Your task to perform on an android device: Open notification settings Image 0: 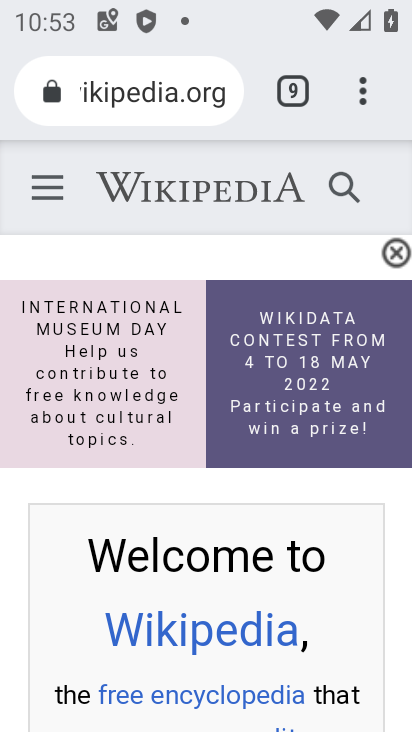
Step 0: press home button
Your task to perform on an android device: Open notification settings Image 1: 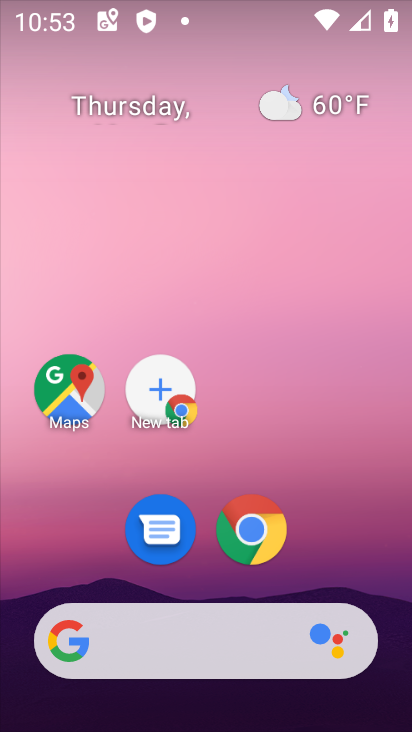
Step 1: drag from (385, 576) to (237, 120)
Your task to perform on an android device: Open notification settings Image 2: 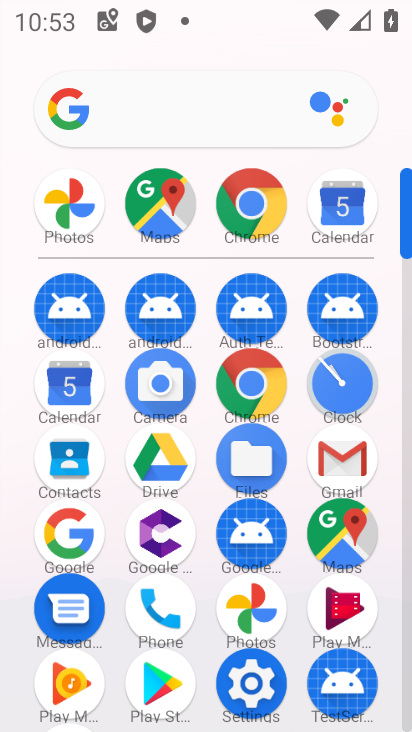
Step 2: click (236, 682)
Your task to perform on an android device: Open notification settings Image 3: 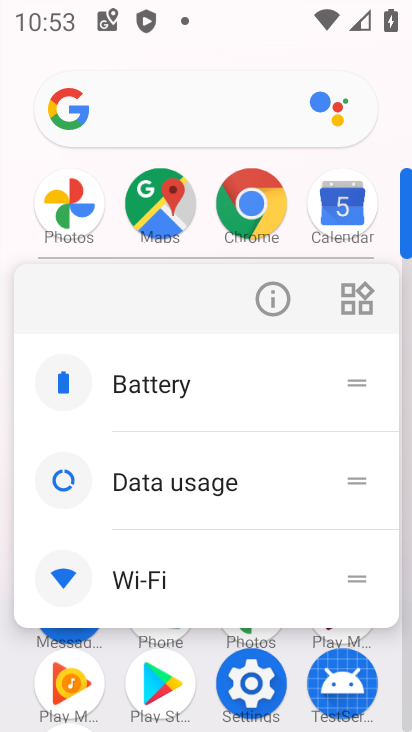
Step 3: click (243, 684)
Your task to perform on an android device: Open notification settings Image 4: 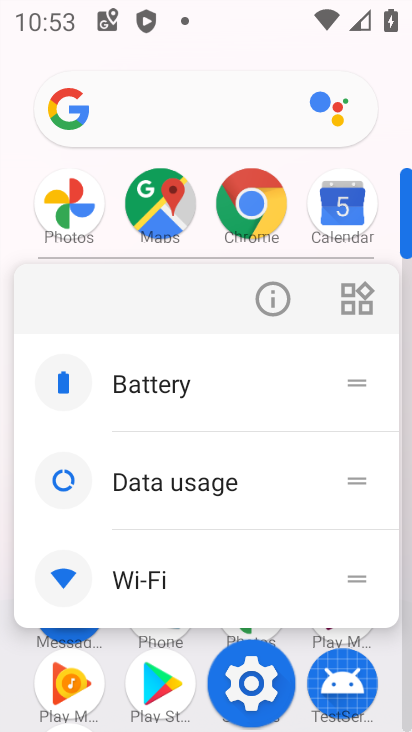
Step 4: click (244, 684)
Your task to perform on an android device: Open notification settings Image 5: 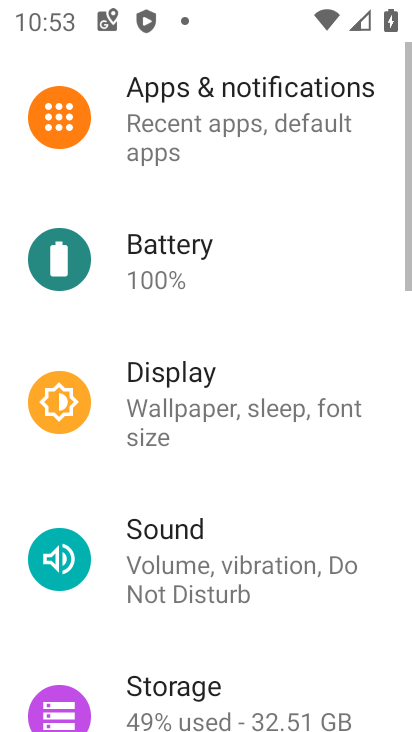
Step 5: click (244, 684)
Your task to perform on an android device: Open notification settings Image 6: 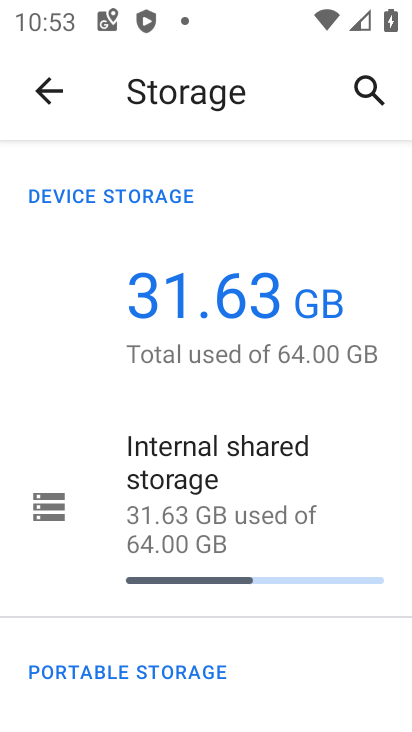
Step 6: click (44, 87)
Your task to perform on an android device: Open notification settings Image 7: 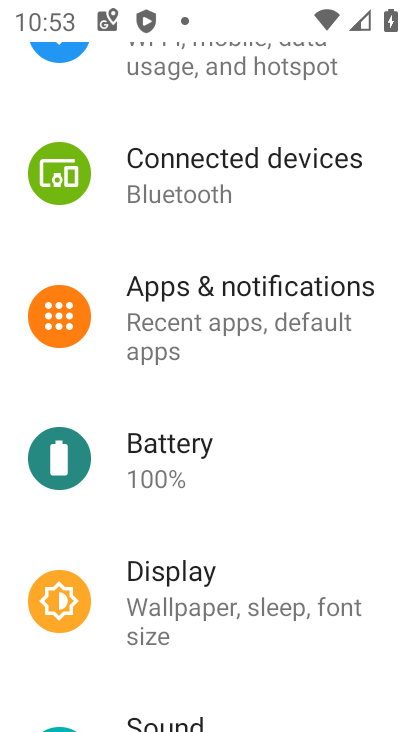
Step 7: click (194, 315)
Your task to perform on an android device: Open notification settings Image 8: 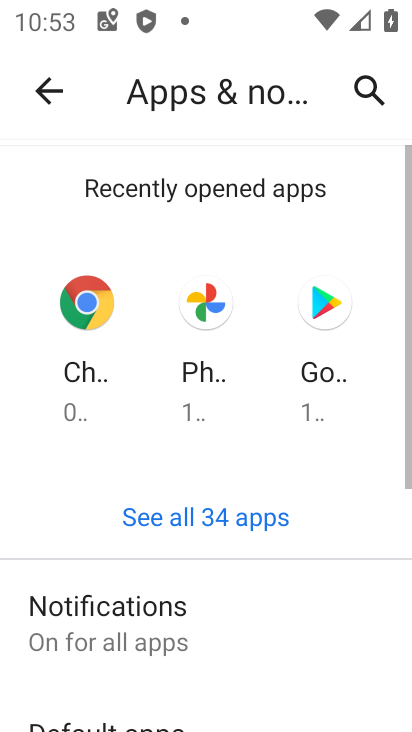
Step 8: click (92, 622)
Your task to perform on an android device: Open notification settings Image 9: 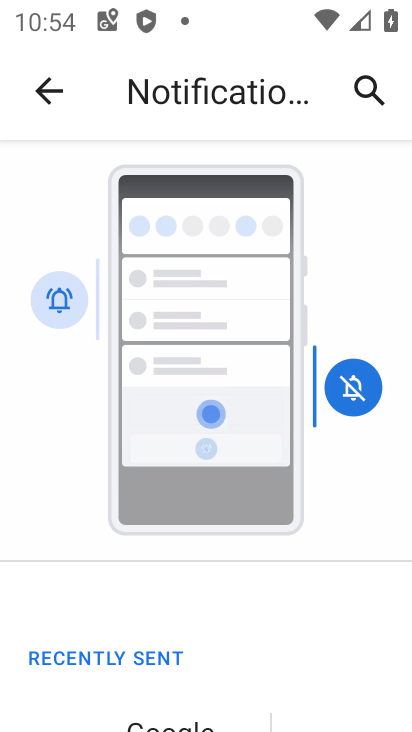
Step 9: drag from (199, 569) to (214, 78)
Your task to perform on an android device: Open notification settings Image 10: 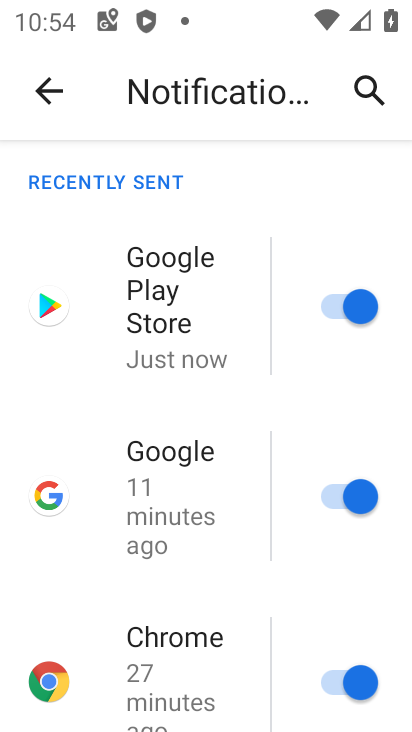
Step 10: drag from (214, 498) to (202, 124)
Your task to perform on an android device: Open notification settings Image 11: 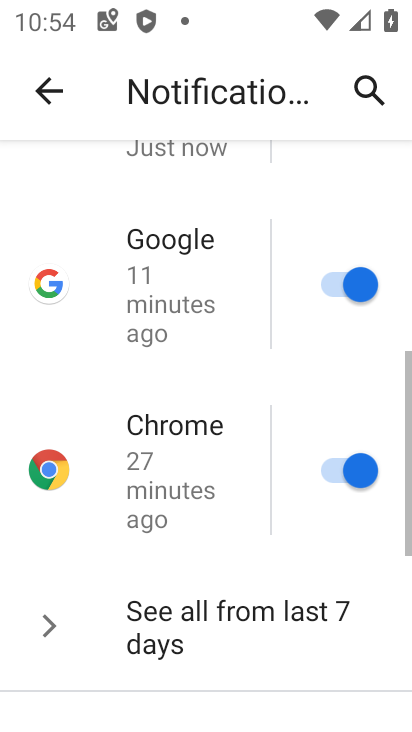
Step 11: drag from (218, 445) to (247, 130)
Your task to perform on an android device: Open notification settings Image 12: 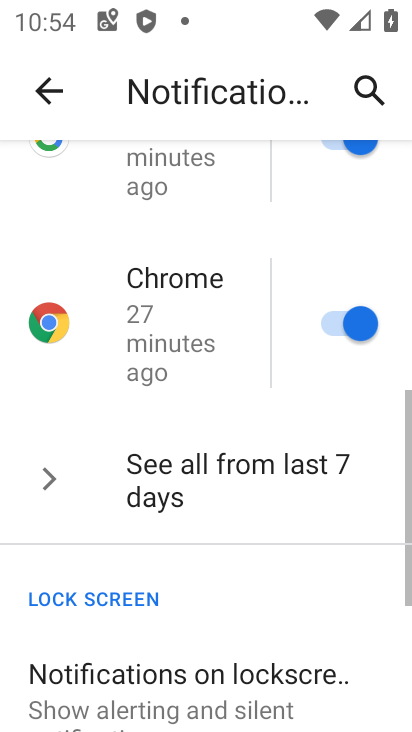
Step 12: drag from (235, 566) to (277, 115)
Your task to perform on an android device: Open notification settings Image 13: 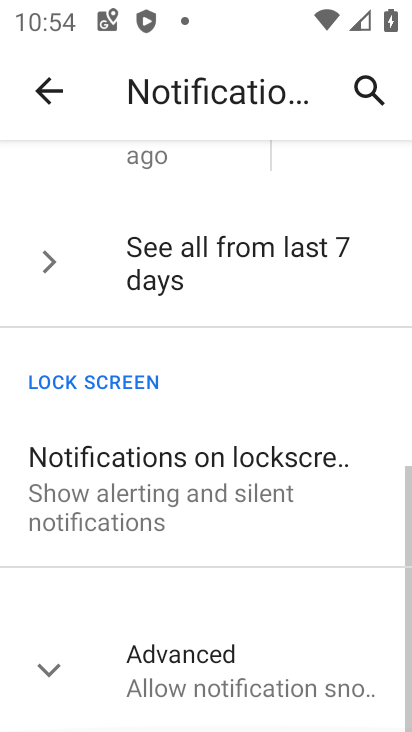
Step 13: drag from (220, 480) to (193, 227)
Your task to perform on an android device: Open notification settings Image 14: 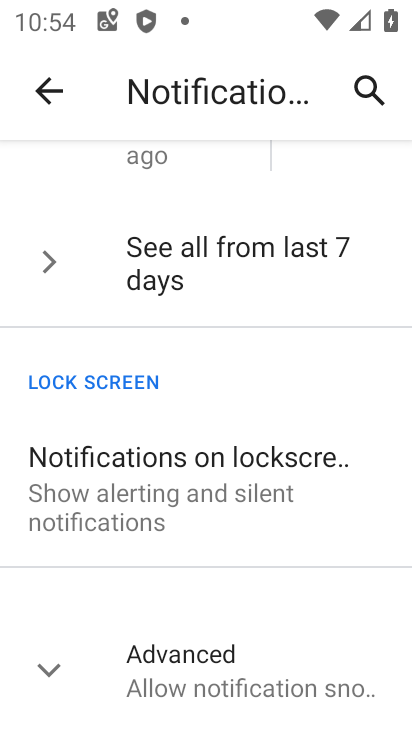
Step 14: click (169, 683)
Your task to perform on an android device: Open notification settings Image 15: 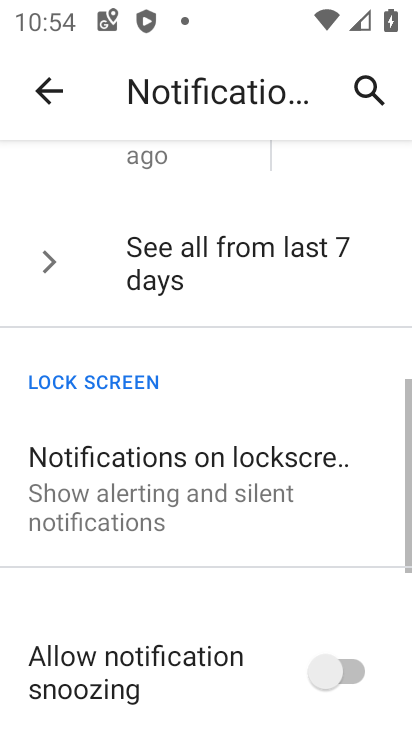
Step 15: drag from (208, 620) to (185, 220)
Your task to perform on an android device: Open notification settings Image 16: 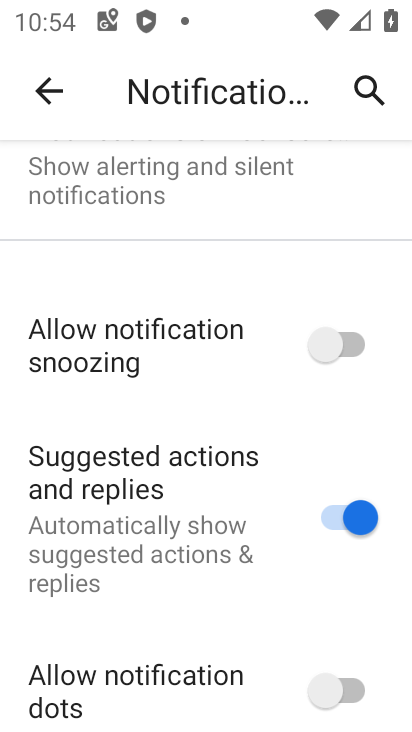
Step 16: click (331, 348)
Your task to perform on an android device: Open notification settings Image 17: 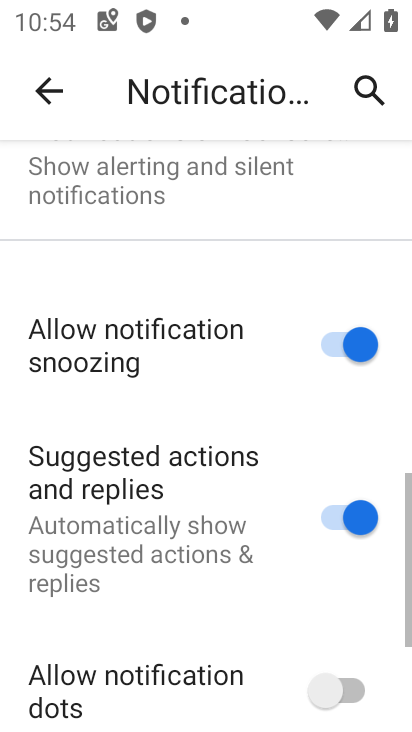
Step 17: click (331, 688)
Your task to perform on an android device: Open notification settings Image 18: 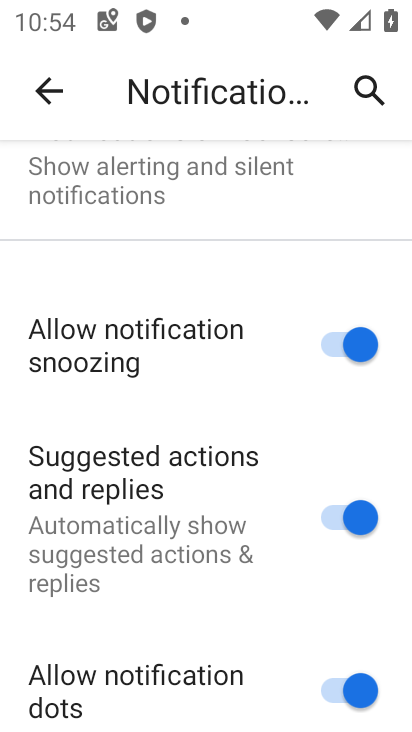
Step 18: click (349, 344)
Your task to perform on an android device: Open notification settings Image 19: 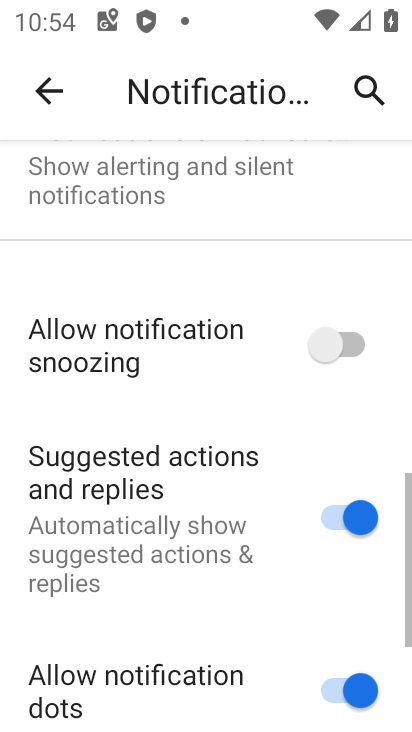
Step 19: click (350, 692)
Your task to perform on an android device: Open notification settings Image 20: 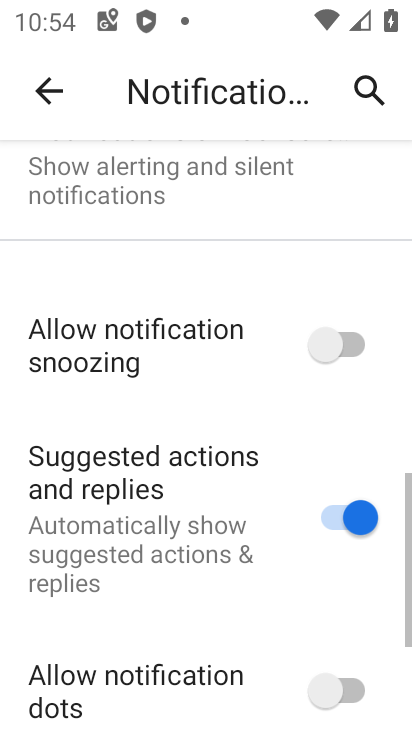
Step 20: task complete